Your task to perform on an android device: Is it going to rain tomorrow? Image 0: 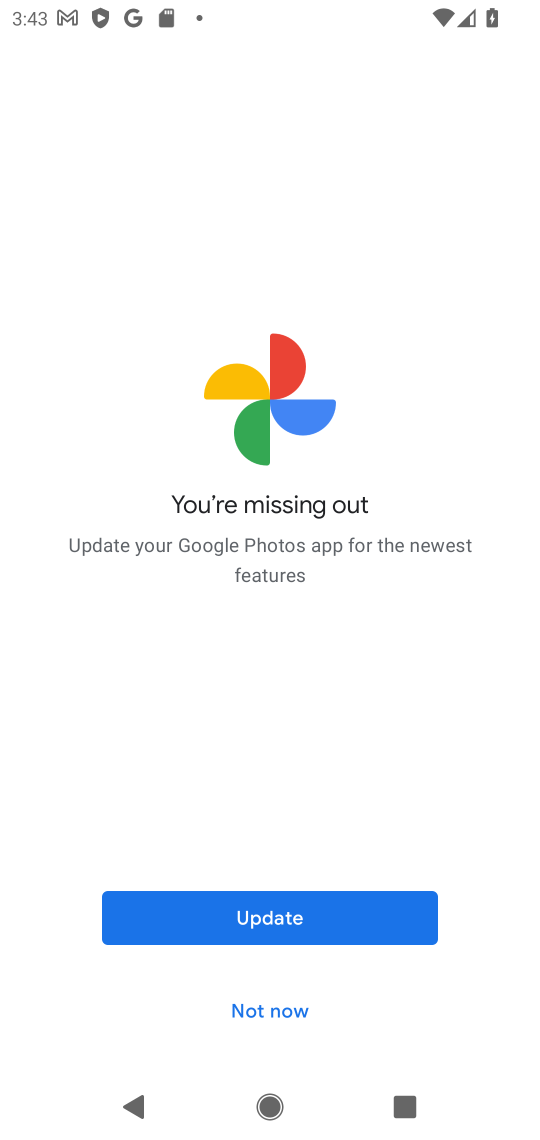
Step 0: press home button
Your task to perform on an android device: Is it going to rain tomorrow? Image 1: 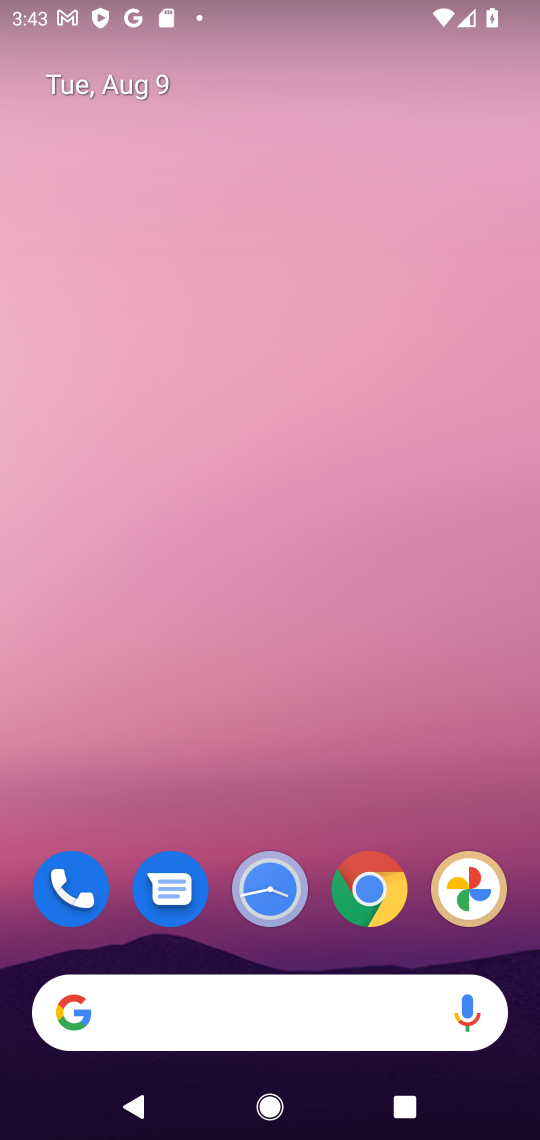
Step 1: click (247, 1012)
Your task to perform on an android device: Is it going to rain tomorrow? Image 2: 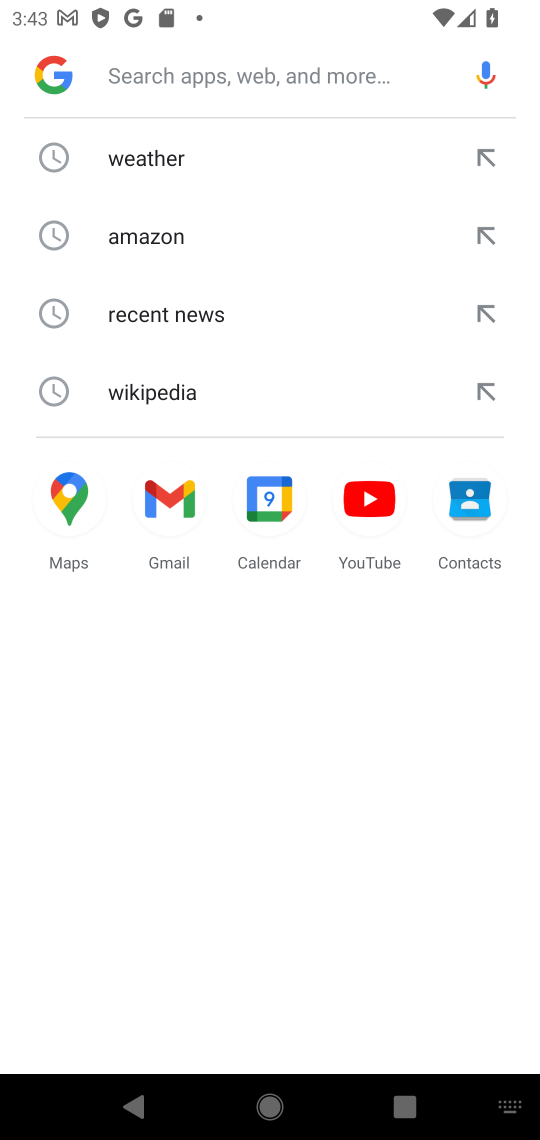
Step 2: click (174, 176)
Your task to perform on an android device: Is it going to rain tomorrow? Image 3: 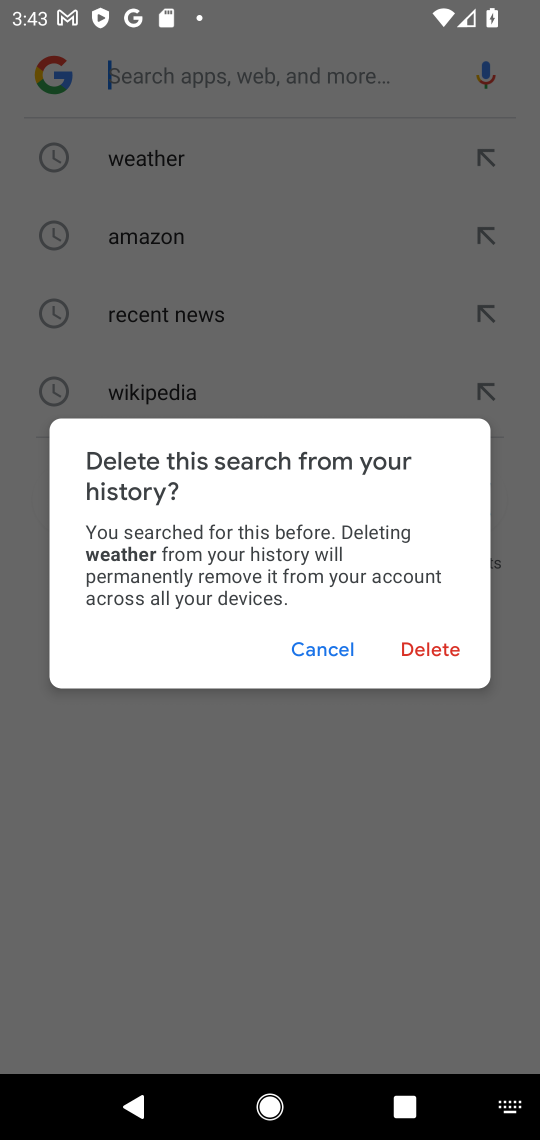
Step 3: click (336, 644)
Your task to perform on an android device: Is it going to rain tomorrow? Image 4: 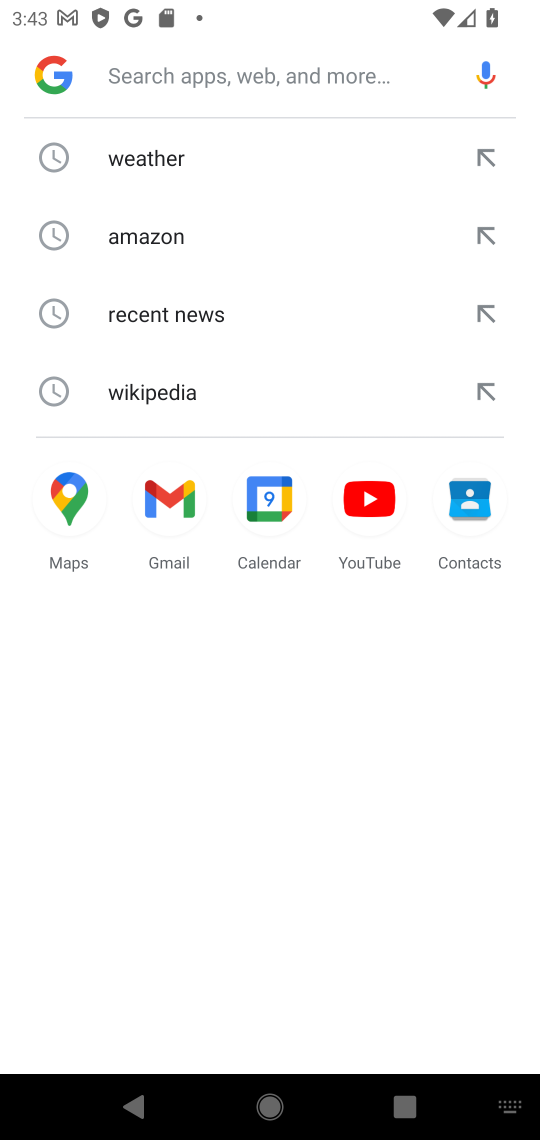
Step 4: click (328, 160)
Your task to perform on an android device: Is it going to rain tomorrow? Image 5: 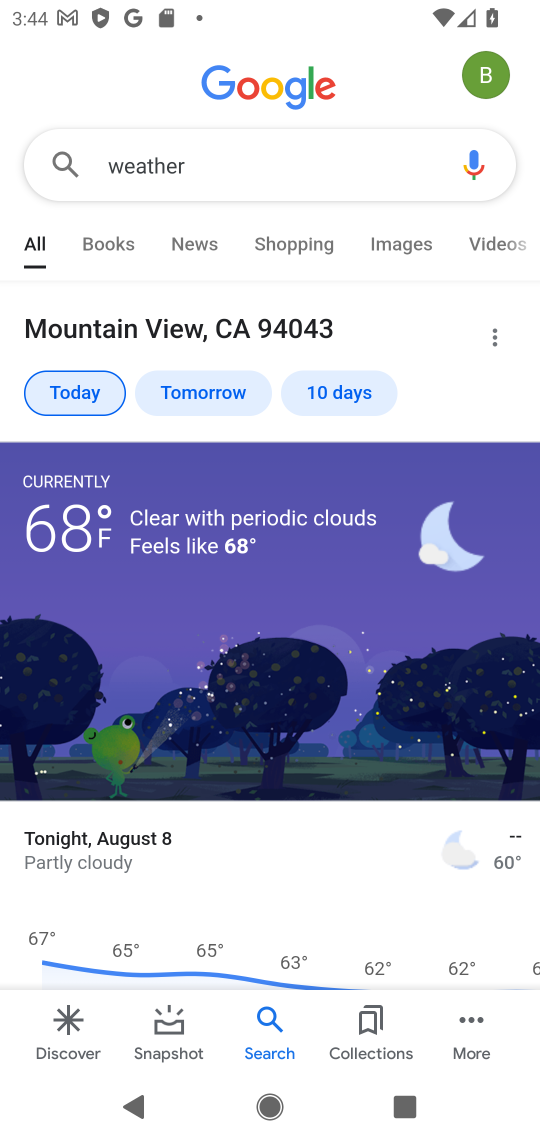
Step 5: click (225, 391)
Your task to perform on an android device: Is it going to rain tomorrow? Image 6: 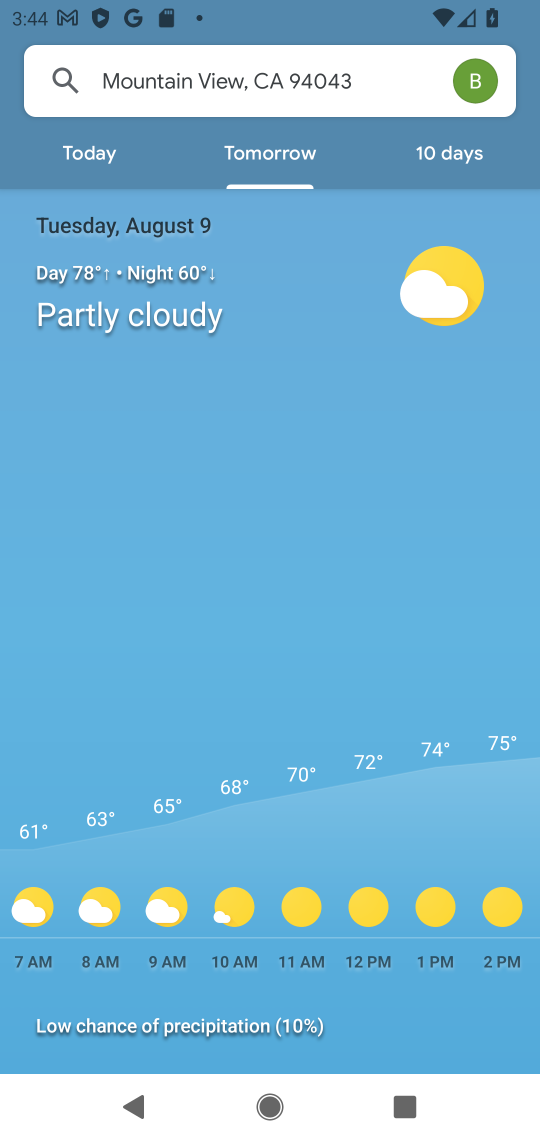
Step 6: task complete